Your task to perform on an android device: Open calendar and show me the first week of next month Image 0: 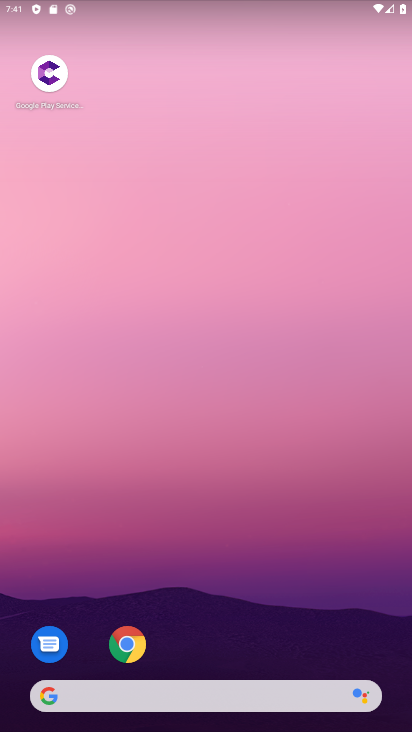
Step 0: drag from (165, 724) to (268, 24)
Your task to perform on an android device: Open calendar and show me the first week of next month Image 1: 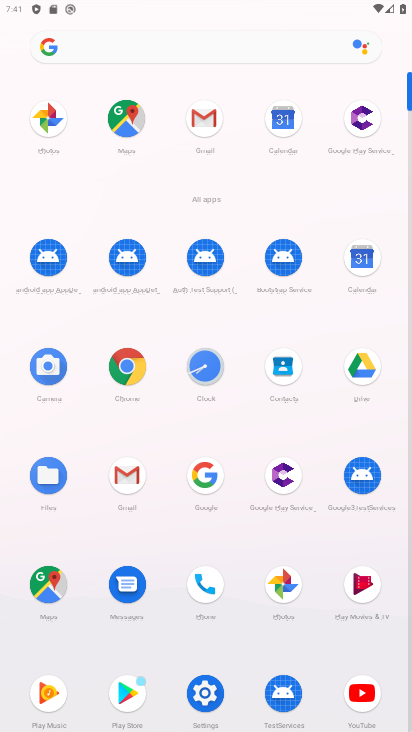
Step 1: click (274, 129)
Your task to perform on an android device: Open calendar and show me the first week of next month Image 2: 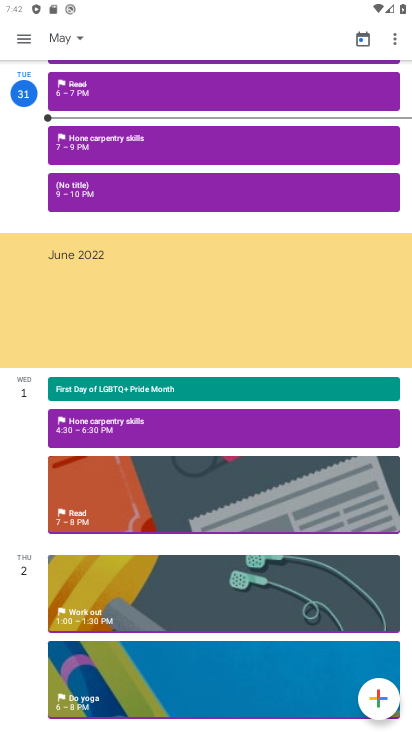
Step 2: click (52, 37)
Your task to perform on an android device: Open calendar and show me the first week of next month Image 3: 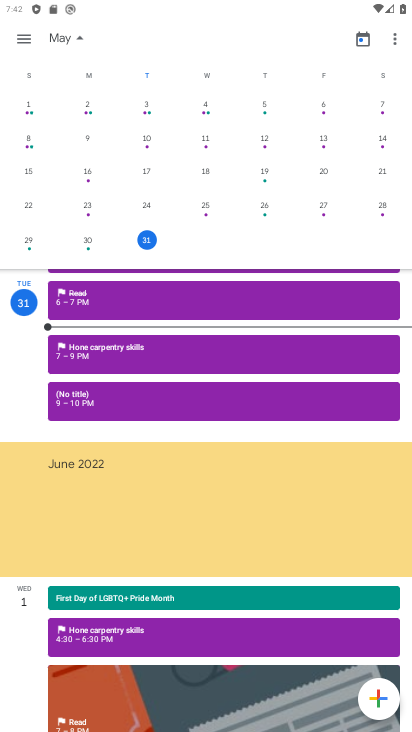
Step 3: task complete